Your task to perform on an android device: Open privacy settings Image 0: 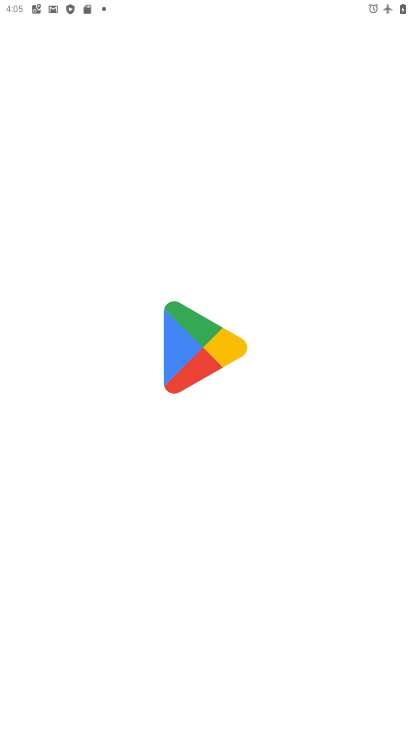
Step 0: press home button
Your task to perform on an android device: Open privacy settings Image 1: 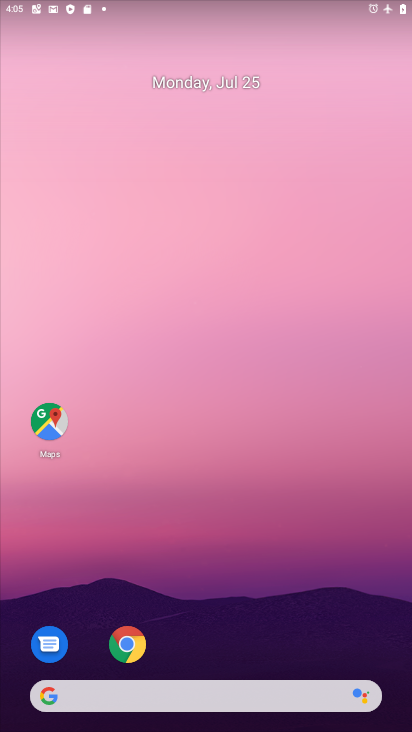
Step 1: drag from (229, 637) to (199, 110)
Your task to perform on an android device: Open privacy settings Image 2: 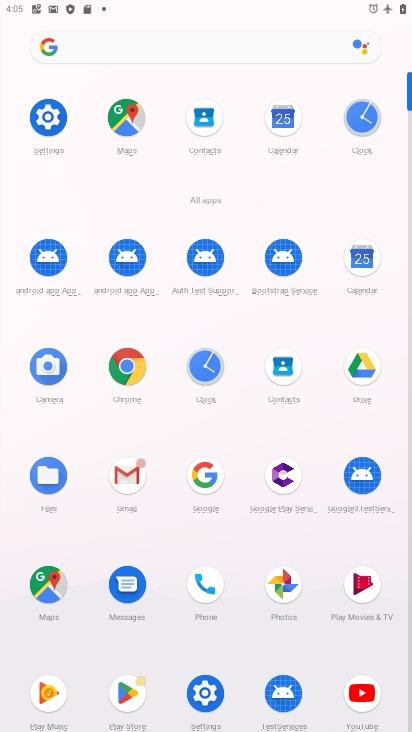
Step 2: click (42, 118)
Your task to perform on an android device: Open privacy settings Image 3: 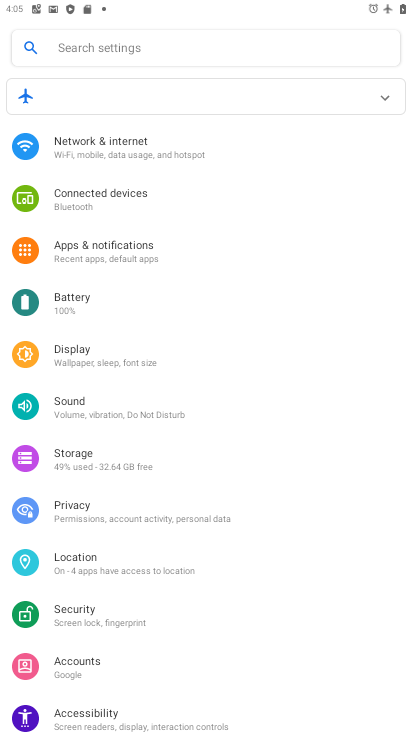
Step 3: drag from (133, 437) to (178, 103)
Your task to perform on an android device: Open privacy settings Image 4: 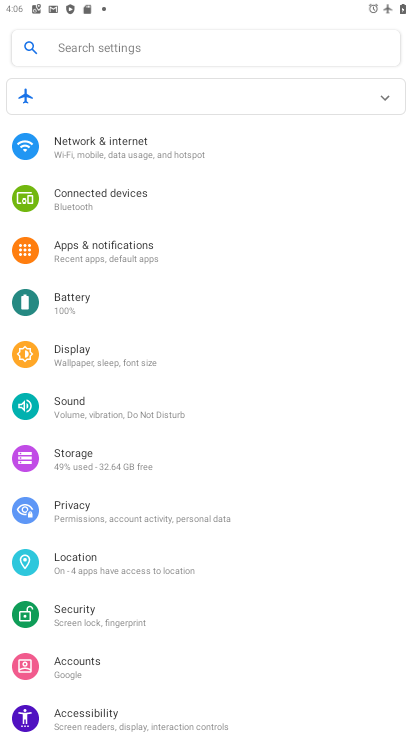
Step 4: click (115, 502)
Your task to perform on an android device: Open privacy settings Image 5: 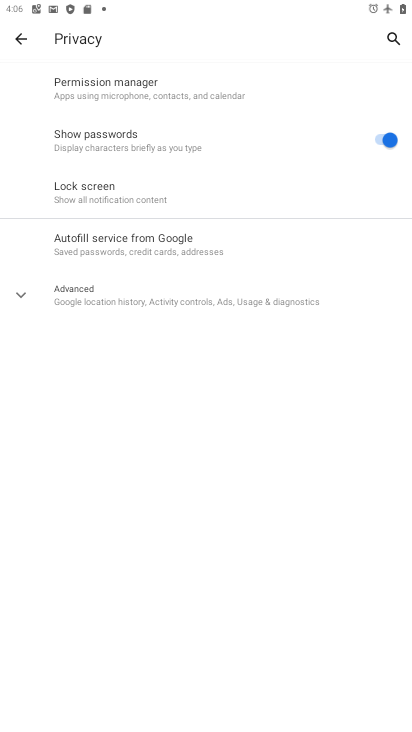
Step 5: task complete